Your task to perform on an android device: turn on location history Image 0: 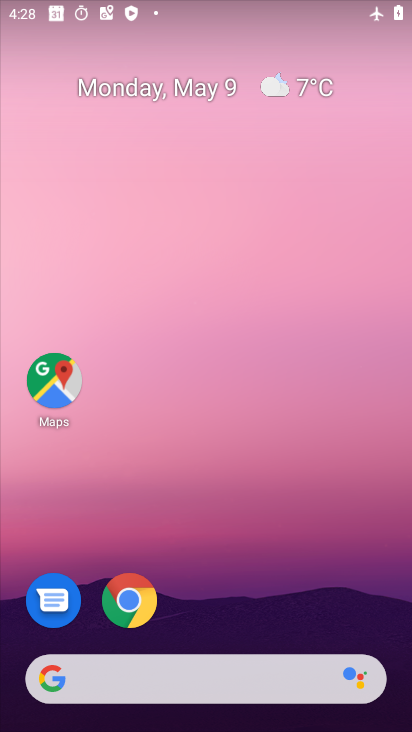
Step 0: drag from (261, 639) to (264, 160)
Your task to perform on an android device: turn on location history Image 1: 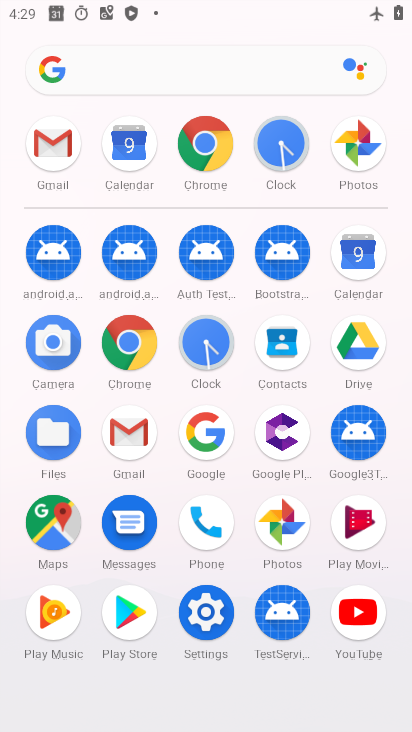
Step 1: click (201, 608)
Your task to perform on an android device: turn on location history Image 2: 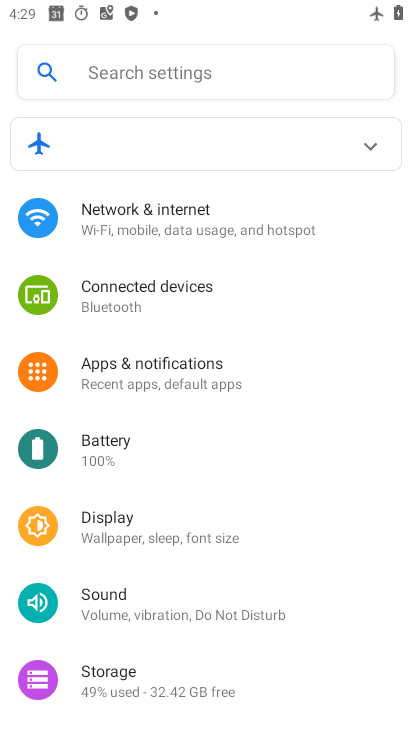
Step 2: drag from (196, 545) to (237, 197)
Your task to perform on an android device: turn on location history Image 3: 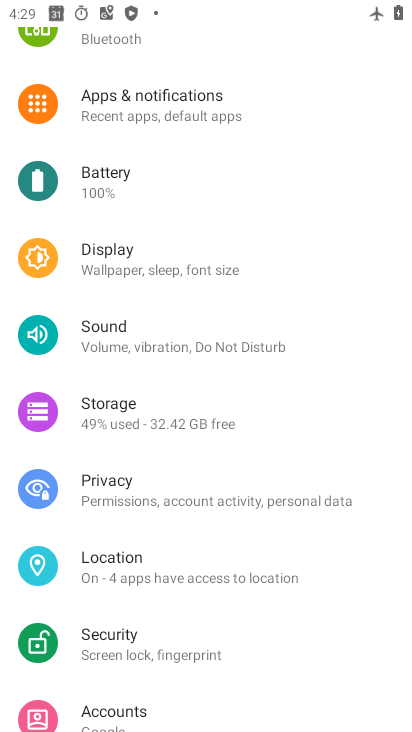
Step 3: click (118, 557)
Your task to perform on an android device: turn on location history Image 4: 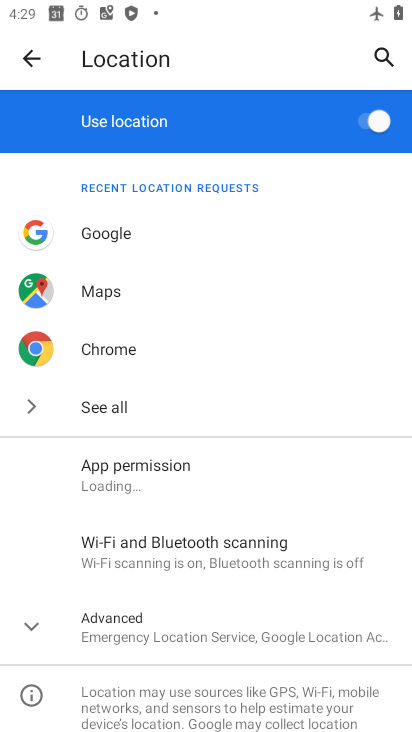
Step 4: drag from (232, 633) to (241, 258)
Your task to perform on an android device: turn on location history Image 5: 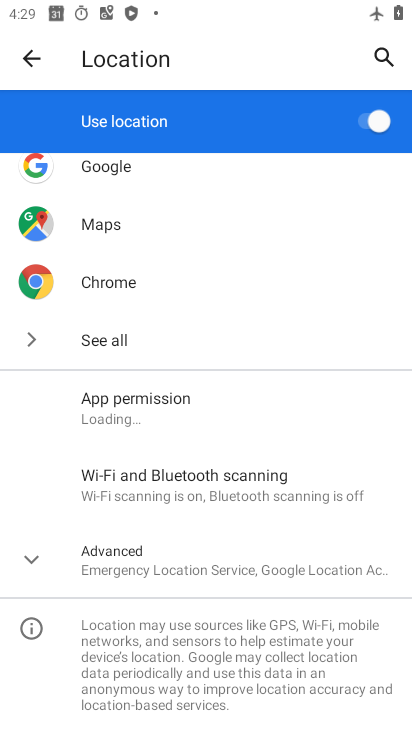
Step 5: click (160, 559)
Your task to perform on an android device: turn on location history Image 6: 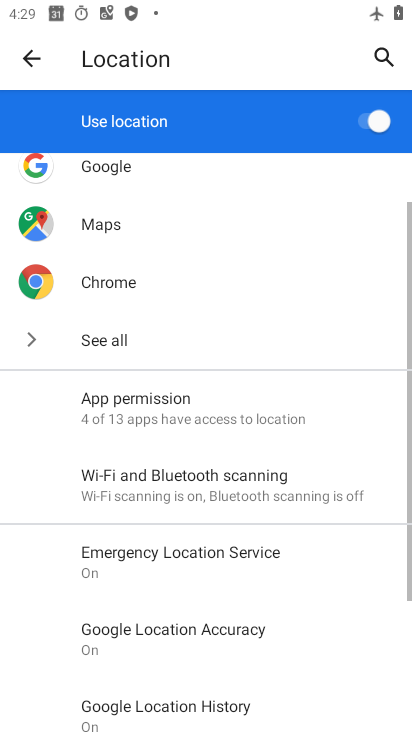
Step 6: drag from (329, 671) to (302, 306)
Your task to perform on an android device: turn on location history Image 7: 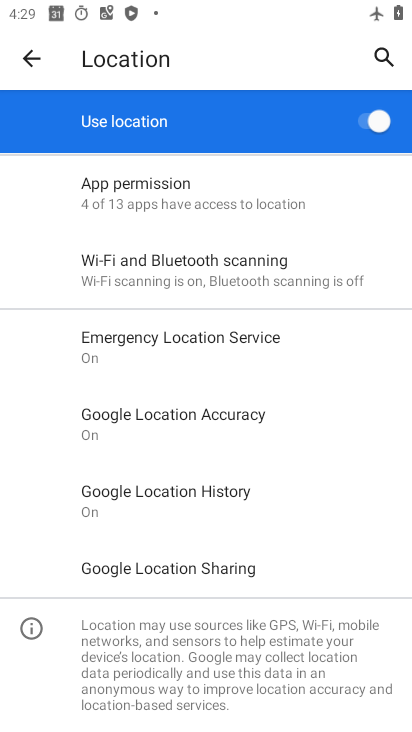
Step 7: click (219, 514)
Your task to perform on an android device: turn on location history Image 8: 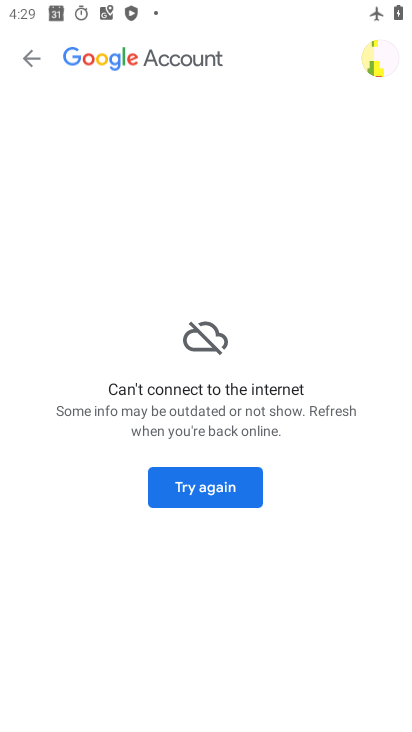
Step 8: task complete